Your task to perform on an android device: snooze an email in the gmail app Image 0: 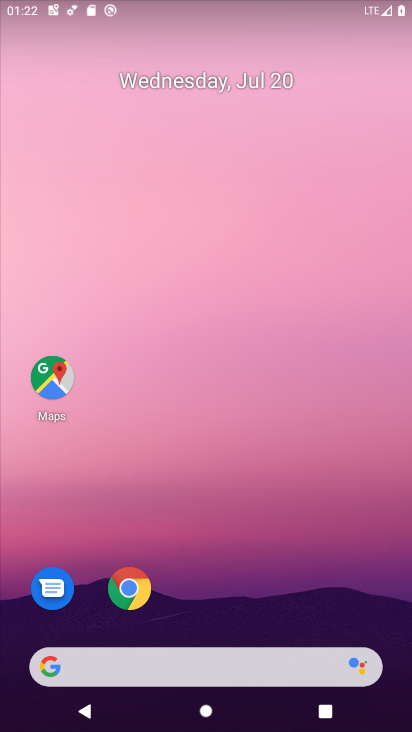
Step 0: drag from (287, 628) to (278, 276)
Your task to perform on an android device: snooze an email in the gmail app Image 1: 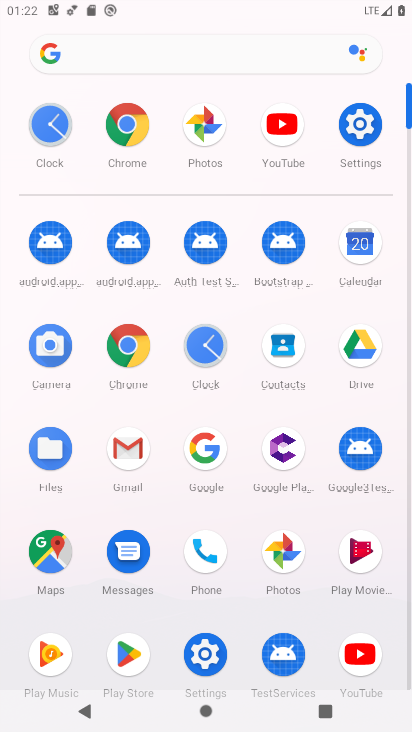
Step 1: click (113, 443)
Your task to perform on an android device: snooze an email in the gmail app Image 2: 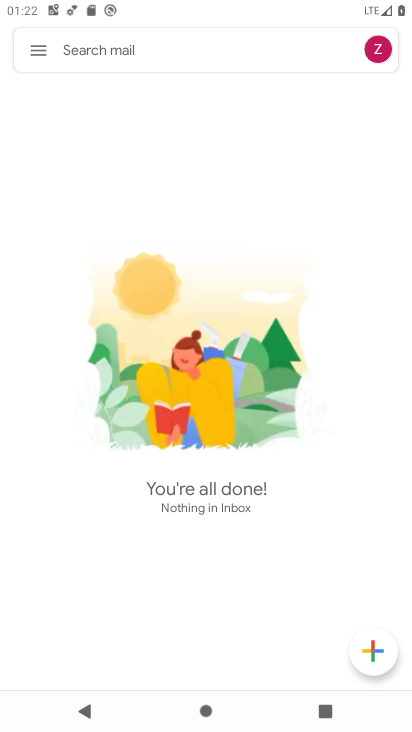
Step 2: click (37, 48)
Your task to perform on an android device: snooze an email in the gmail app Image 3: 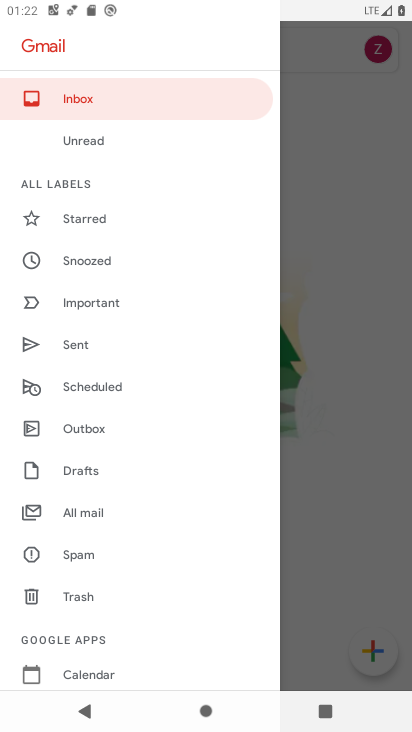
Step 3: click (124, 265)
Your task to perform on an android device: snooze an email in the gmail app Image 4: 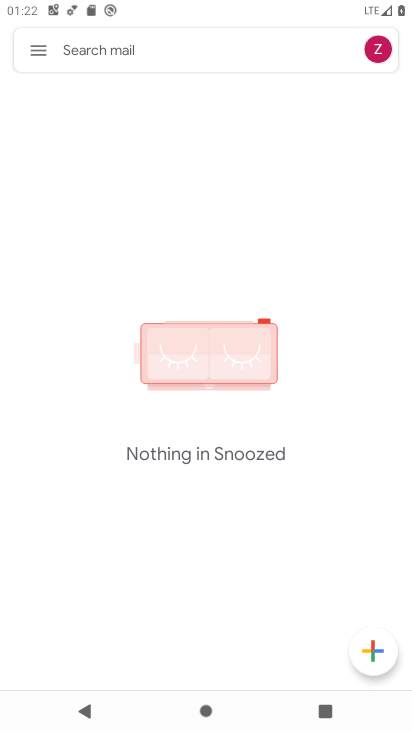
Step 4: task complete